Your task to perform on an android device: Go to network settings Image 0: 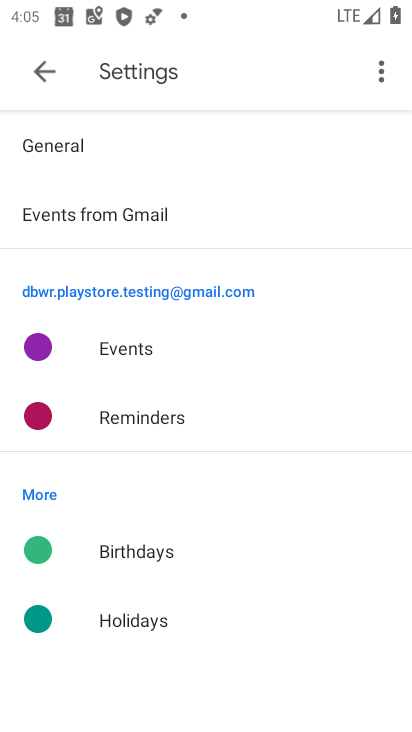
Step 0: press home button
Your task to perform on an android device: Go to network settings Image 1: 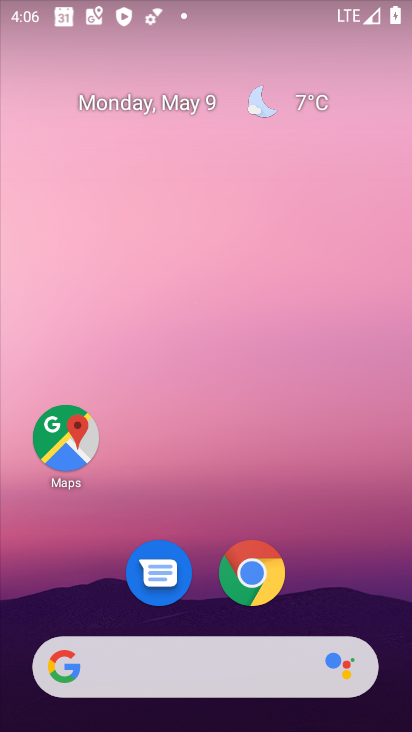
Step 1: drag from (386, 642) to (368, 26)
Your task to perform on an android device: Go to network settings Image 2: 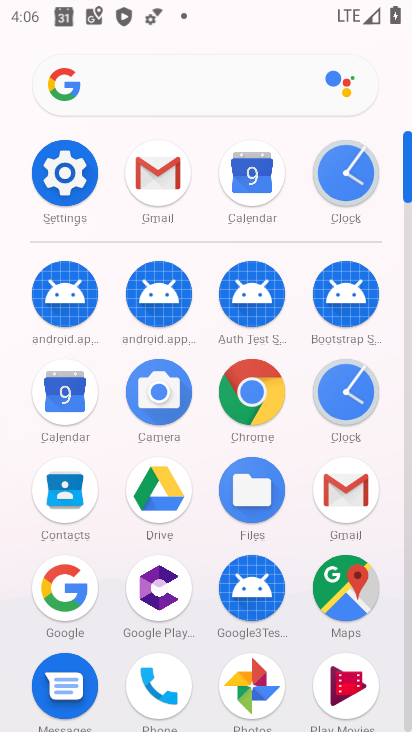
Step 2: click (72, 170)
Your task to perform on an android device: Go to network settings Image 3: 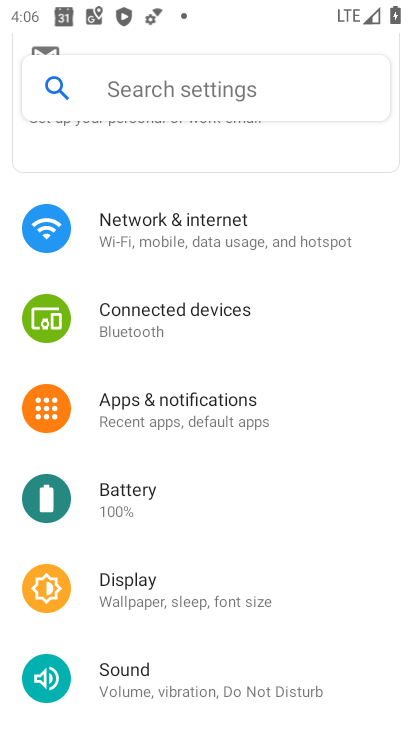
Step 3: click (155, 236)
Your task to perform on an android device: Go to network settings Image 4: 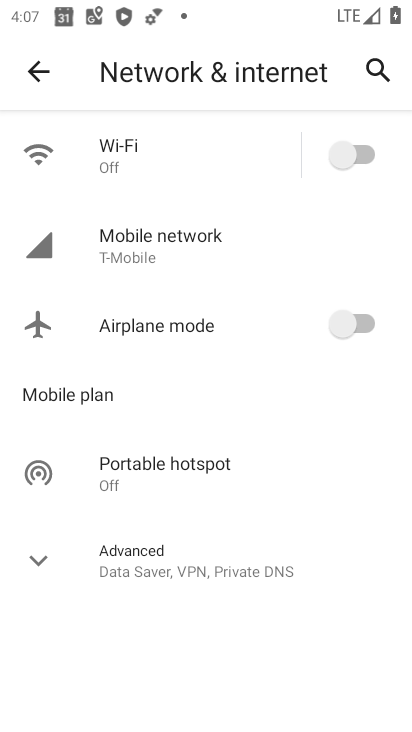
Step 4: click (93, 244)
Your task to perform on an android device: Go to network settings Image 5: 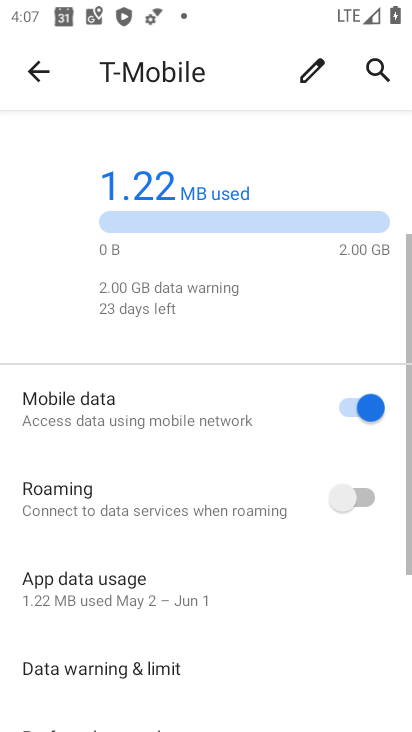
Step 5: drag from (262, 634) to (244, 117)
Your task to perform on an android device: Go to network settings Image 6: 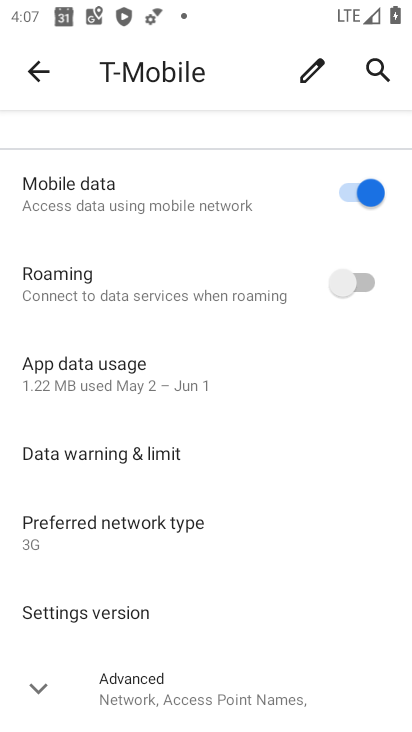
Step 6: click (39, 701)
Your task to perform on an android device: Go to network settings Image 7: 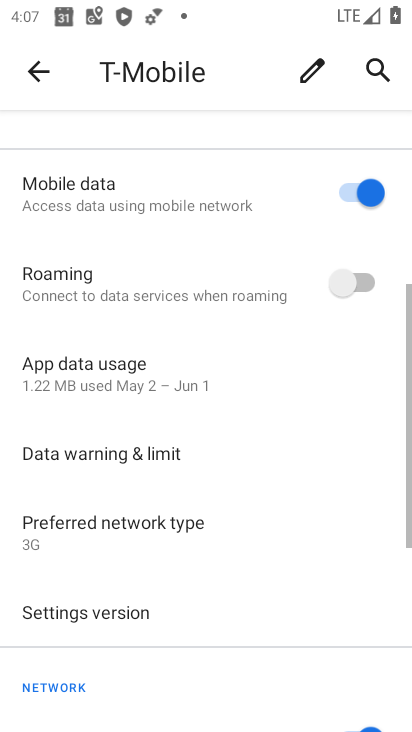
Step 7: task complete